Your task to perform on an android device: set an alarm Image 0: 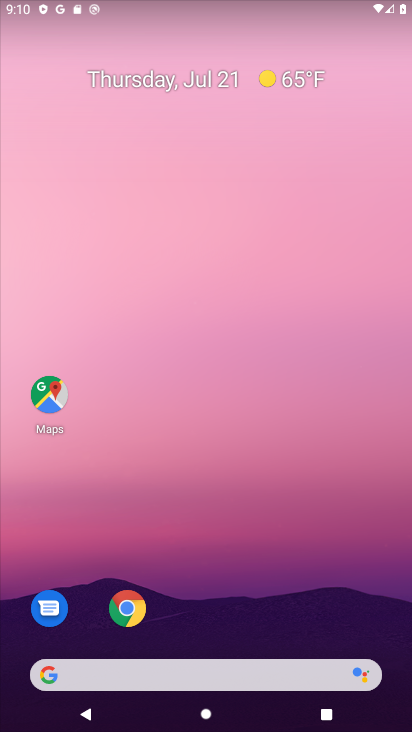
Step 0: drag from (266, 516) to (245, 66)
Your task to perform on an android device: set an alarm Image 1: 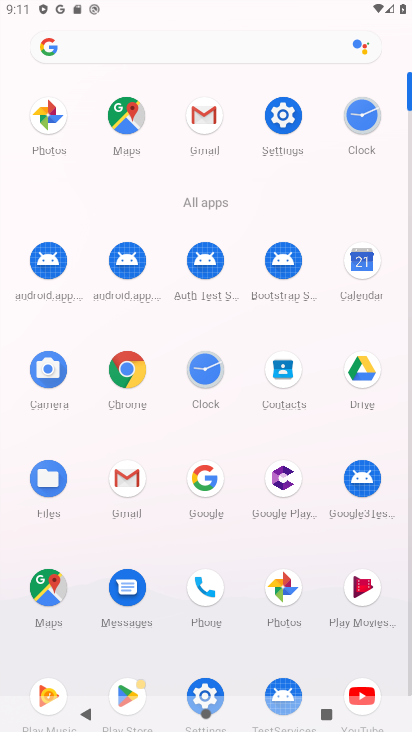
Step 1: click (361, 120)
Your task to perform on an android device: set an alarm Image 2: 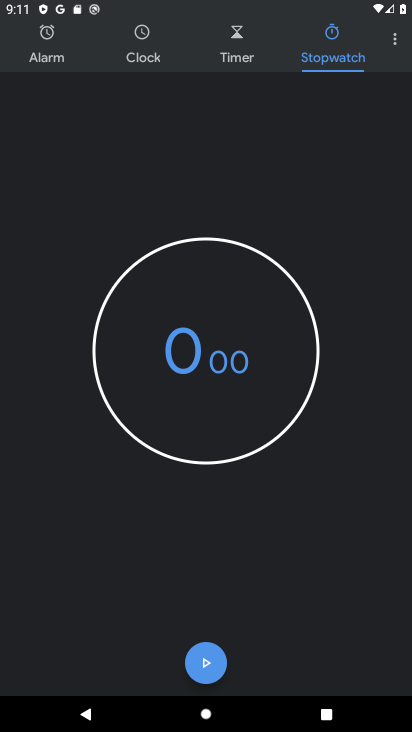
Step 2: click (44, 38)
Your task to perform on an android device: set an alarm Image 3: 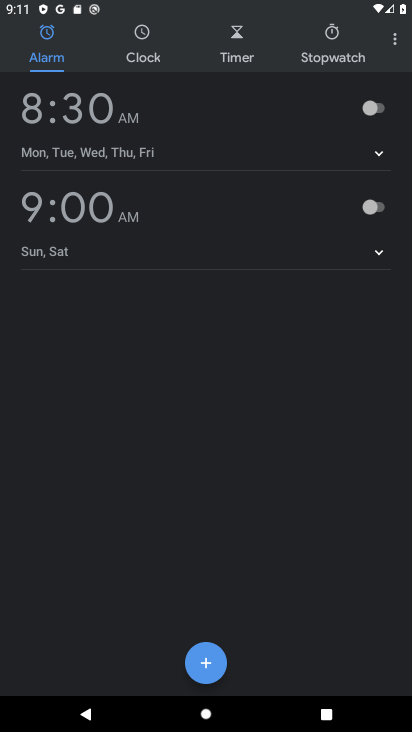
Step 3: click (377, 107)
Your task to perform on an android device: set an alarm Image 4: 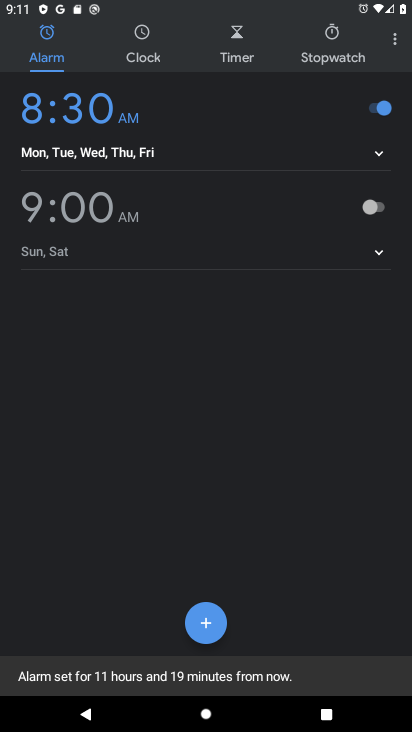
Step 4: task complete